Your task to perform on an android device: Open Chrome and go to settings Image 0: 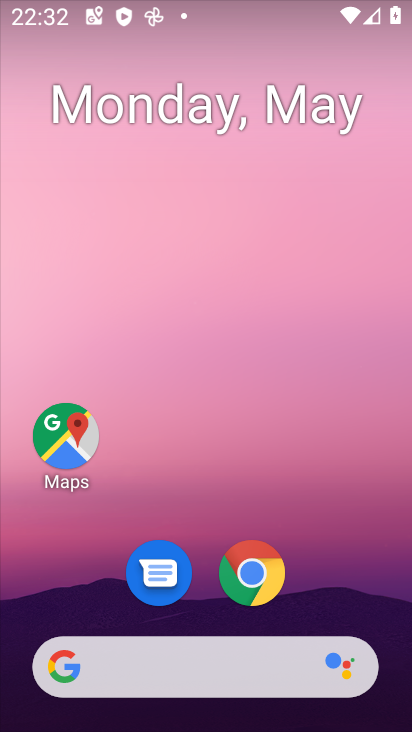
Step 0: click (254, 586)
Your task to perform on an android device: Open Chrome and go to settings Image 1: 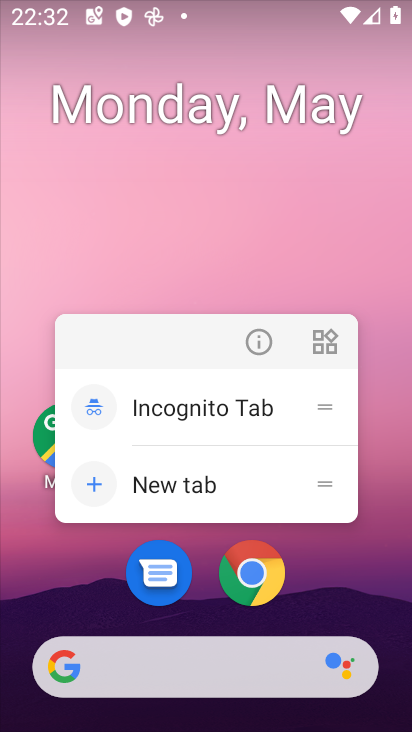
Step 1: click (335, 200)
Your task to perform on an android device: Open Chrome and go to settings Image 2: 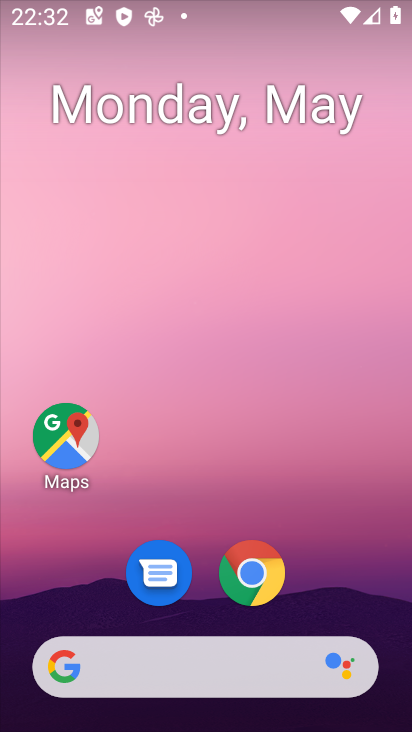
Step 2: click (273, 572)
Your task to perform on an android device: Open Chrome and go to settings Image 3: 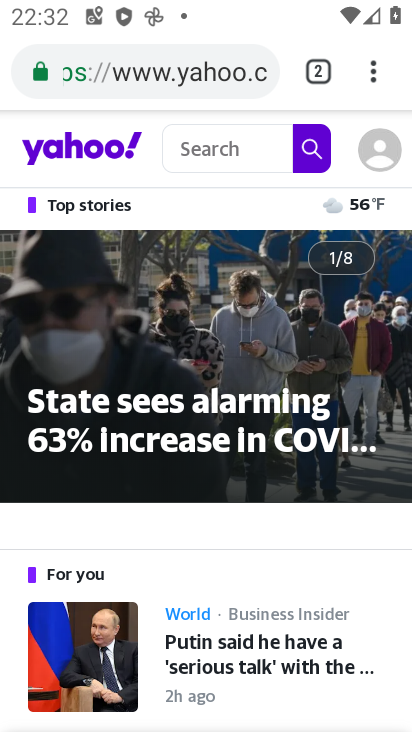
Step 3: click (377, 81)
Your task to perform on an android device: Open Chrome and go to settings Image 4: 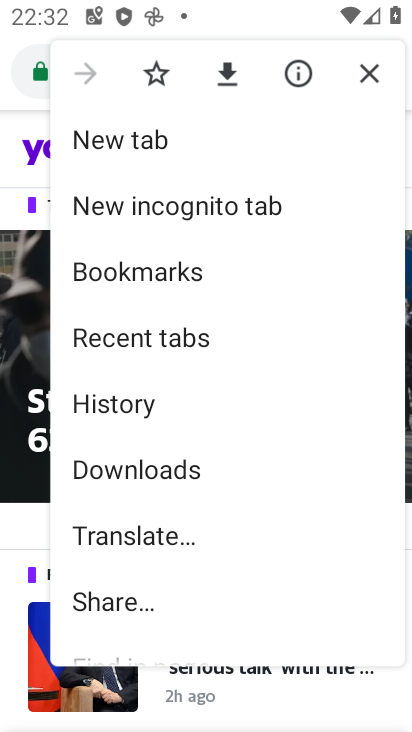
Step 4: drag from (149, 563) to (196, 350)
Your task to perform on an android device: Open Chrome and go to settings Image 5: 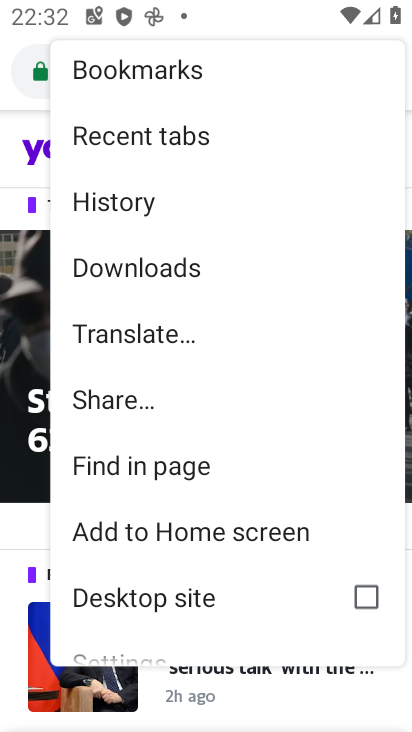
Step 5: click (140, 659)
Your task to perform on an android device: Open Chrome and go to settings Image 6: 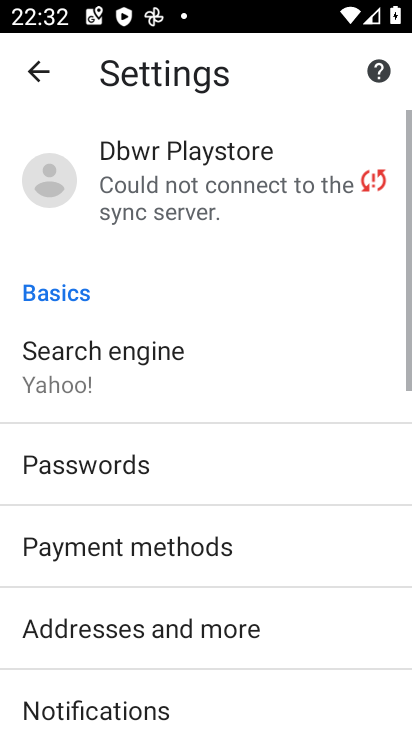
Step 6: task complete